Your task to perform on an android device: turn off data saver in the chrome app Image 0: 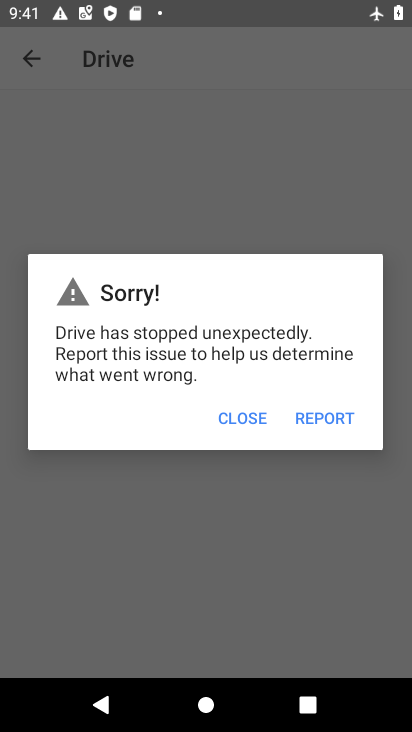
Step 0: click (128, 545)
Your task to perform on an android device: turn off data saver in the chrome app Image 1: 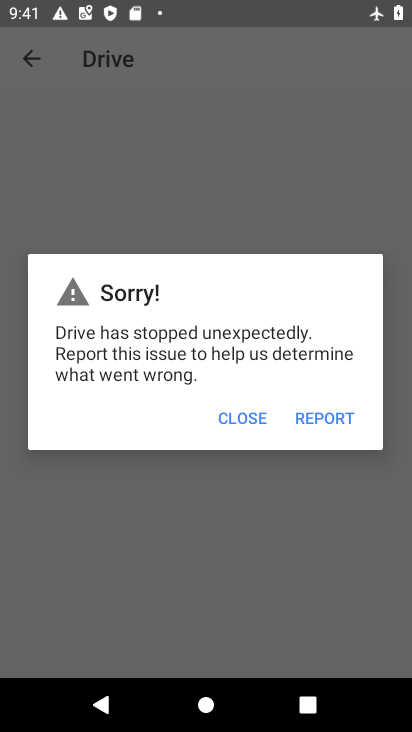
Step 1: press home button
Your task to perform on an android device: turn off data saver in the chrome app Image 2: 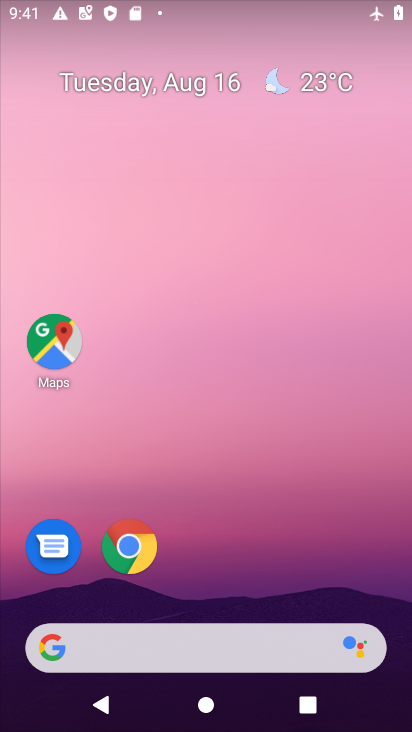
Step 2: click (128, 549)
Your task to perform on an android device: turn off data saver in the chrome app Image 3: 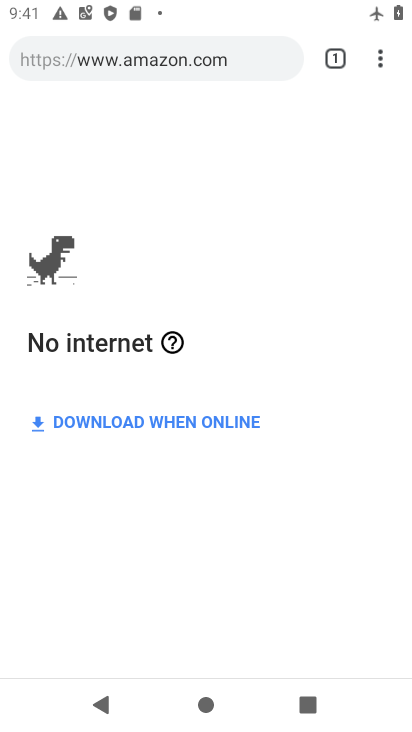
Step 3: click (379, 60)
Your task to perform on an android device: turn off data saver in the chrome app Image 4: 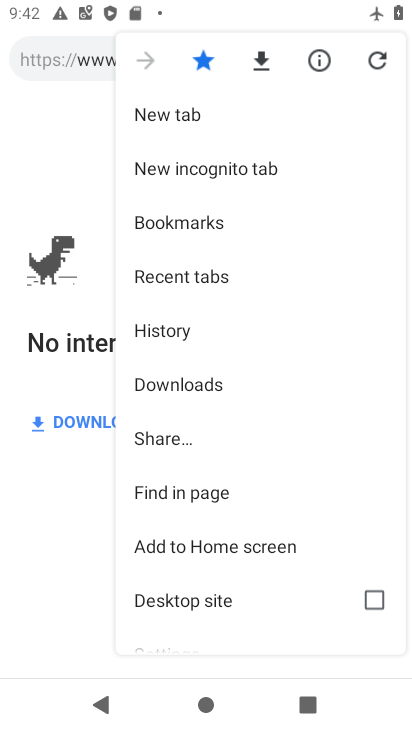
Step 4: drag from (252, 526) to (309, 118)
Your task to perform on an android device: turn off data saver in the chrome app Image 5: 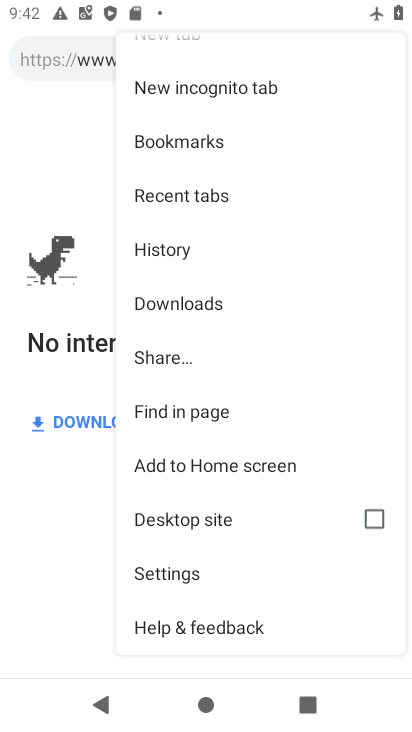
Step 5: click (188, 572)
Your task to perform on an android device: turn off data saver in the chrome app Image 6: 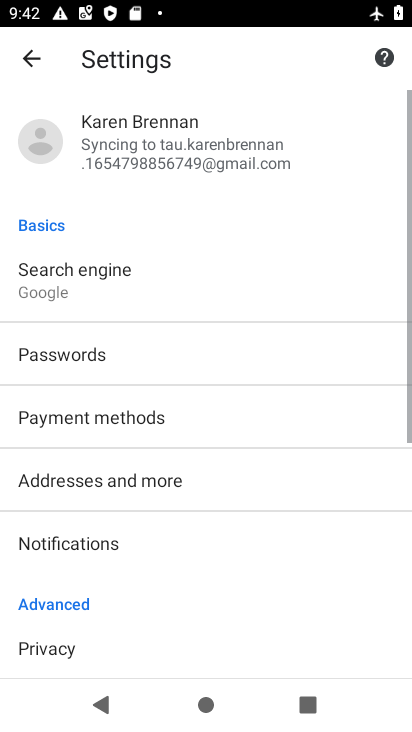
Step 6: drag from (188, 568) to (226, 203)
Your task to perform on an android device: turn off data saver in the chrome app Image 7: 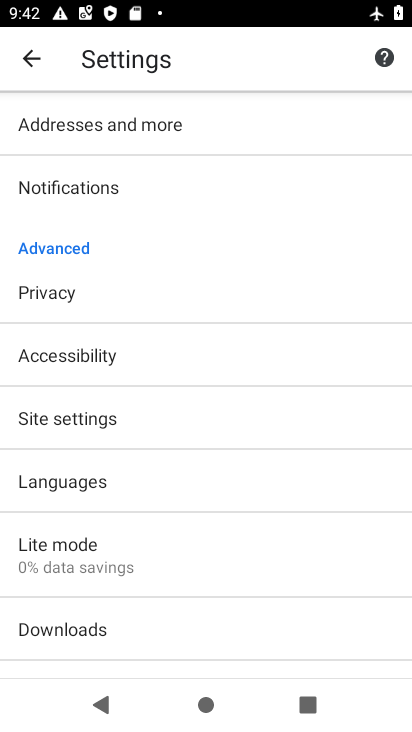
Step 7: click (93, 555)
Your task to perform on an android device: turn off data saver in the chrome app Image 8: 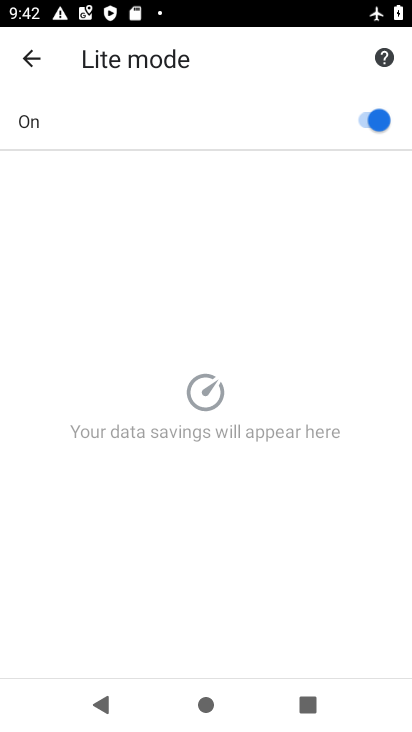
Step 8: click (369, 117)
Your task to perform on an android device: turn off data saver in the chrome app Image 9: 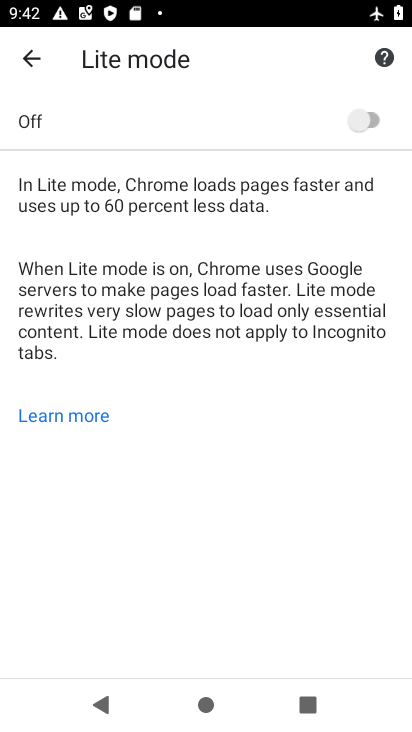
Step 9: task complete